Your task to perform on an android device: Go to network settings Image 0: 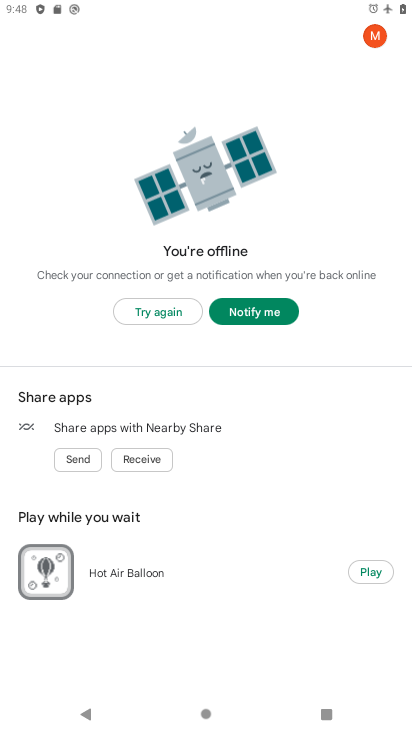
Step 0: press home button
Your task to perform on an android device: Go to network settings Image 1: 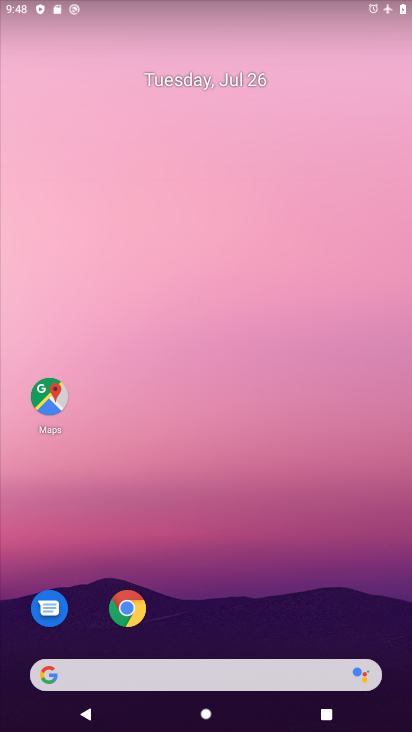
Step 1: drag from (240, 715) to (227, 84)
Your task to perform on an android device: Go to network settings Image 2: 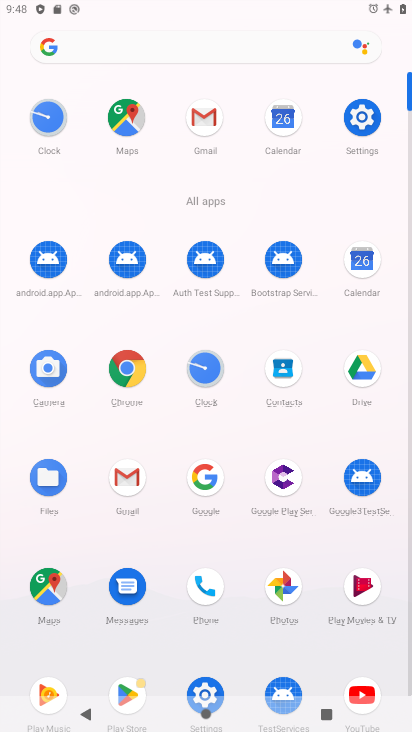
Step 2: click (371, 121)
Your task to perform on an android device: Go to network settings Image 3: 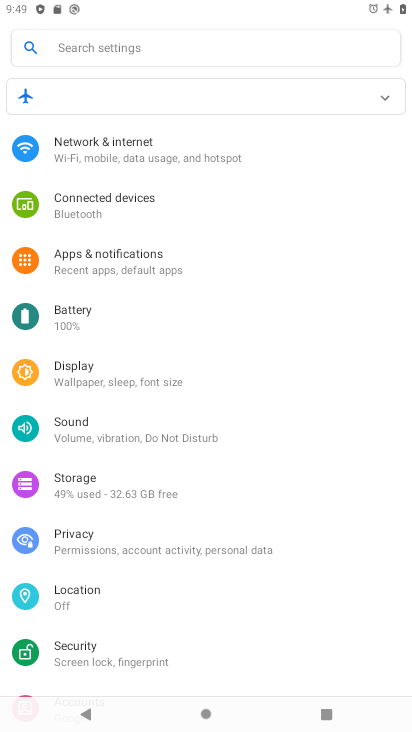
Step 3: click (120, 152)
Your task to perform on an android device: Go to network settings Image 4: 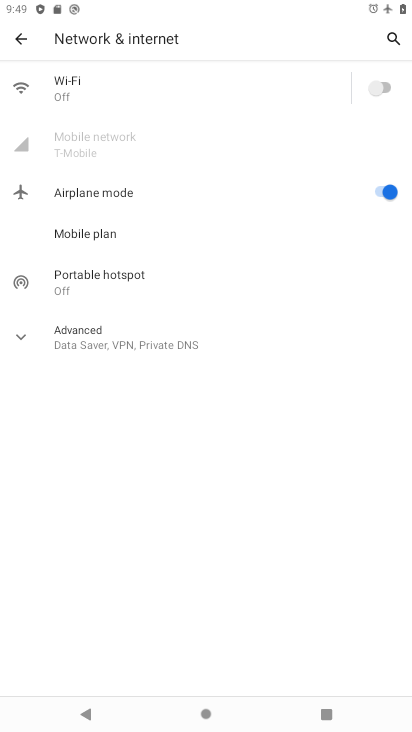
Step 4: click (388, 191)
Your task to perform on an android device: Go to network settings Image 5: 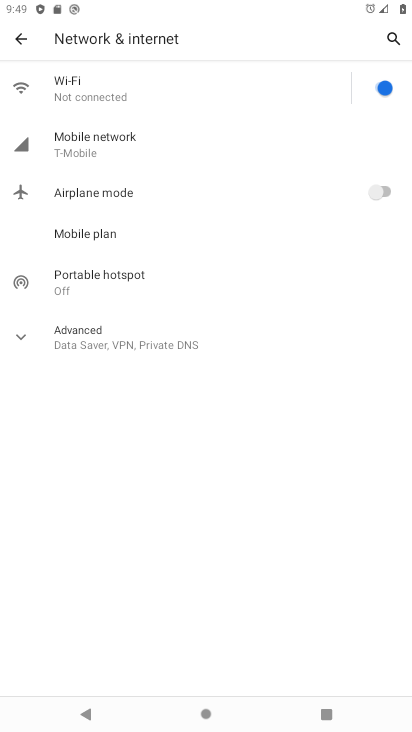
Step 5: click (86, 143)
Your task to perform on an android device: Go to network settings Image 6: 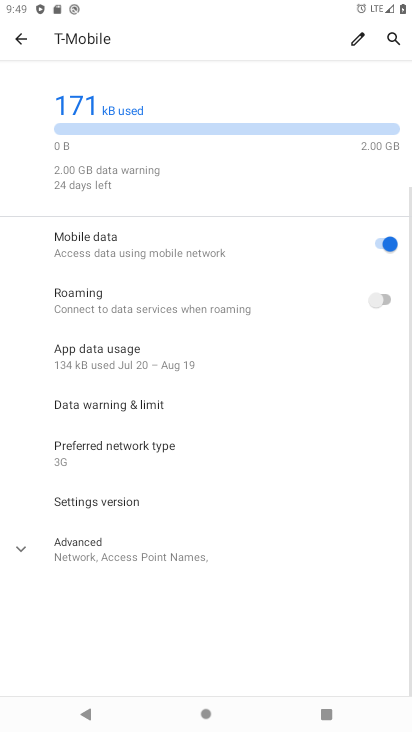
Step 6: task complete